Your task to perform on an android device: check storage Image 0: 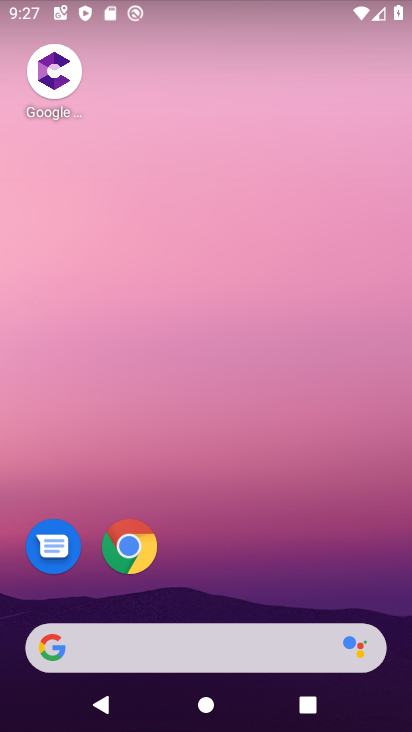
Step 0: drag from (145, 582) to (248, 75)
Your task to perform on an android device: check storage Image 1: 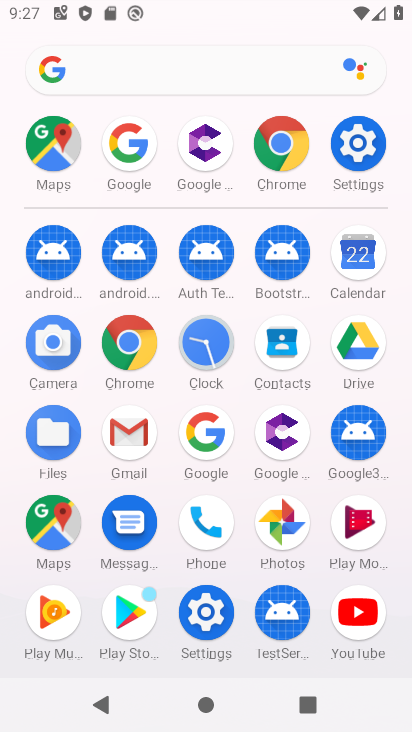
Step 1: click (364, 130)
Your task to perform on an android device: check storage Image 2: 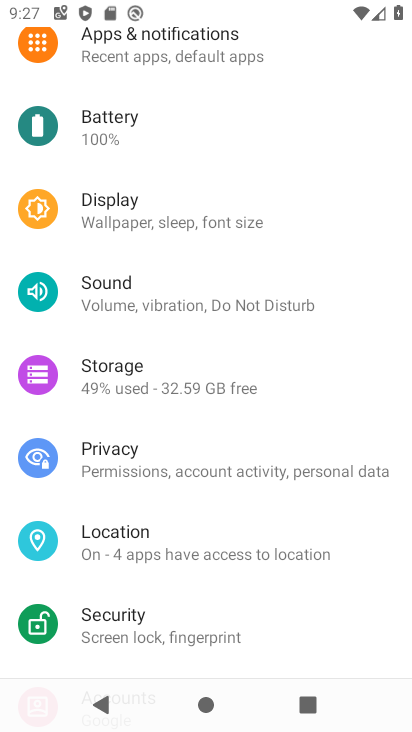
Step 2: click (145, 371)
Your task to perform on an android device: check storage Image 3: 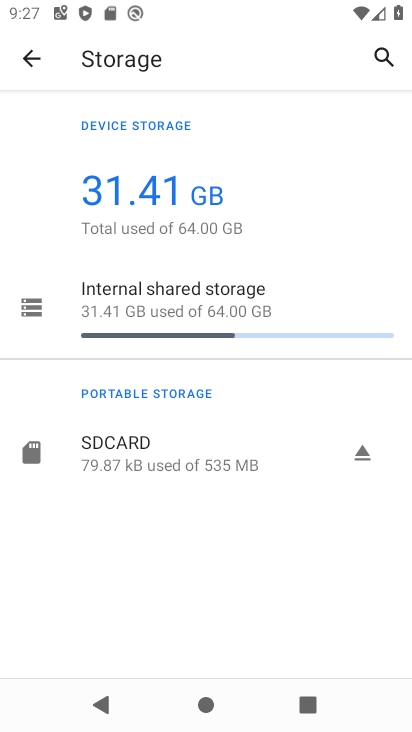
Step 3: task complete